Your task to perform on an android device: turn on bluetooth scan Image 0: 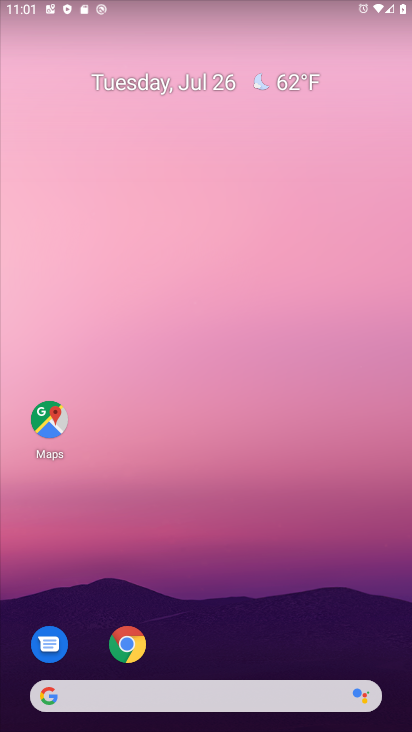
Step 0: drag from (256, 623) to (239, 264)
Your task to perform on an android device: turn on bluetooth scan Image 1: 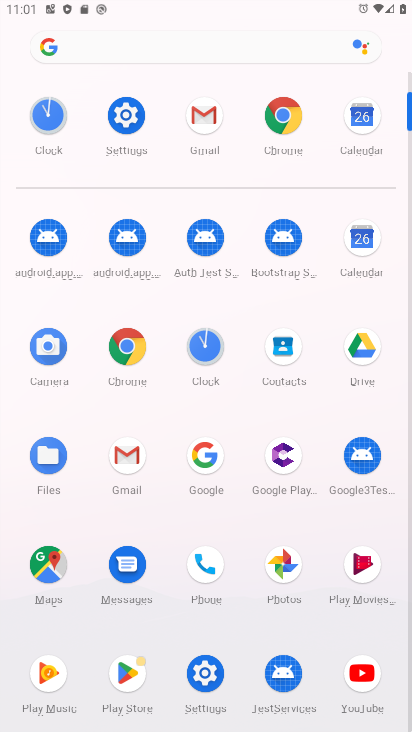
Step 1: click (126, 127)
Your task to perform on an android device: turn on bluetooth scan Image 2: 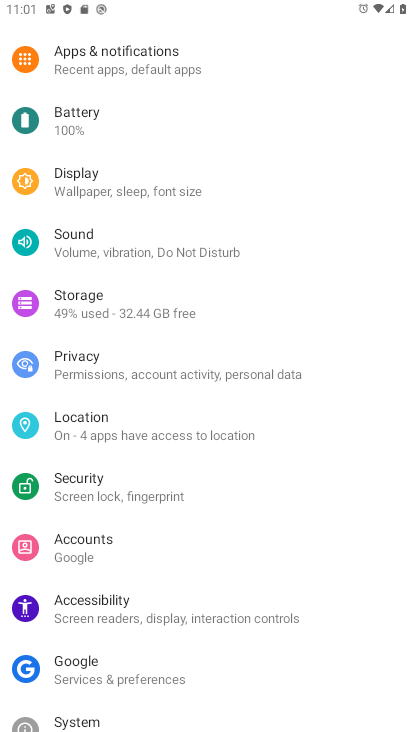
Step 2: click (102, 416)
Your task to perform on an android device: turn on bluetooth scan Image 3: 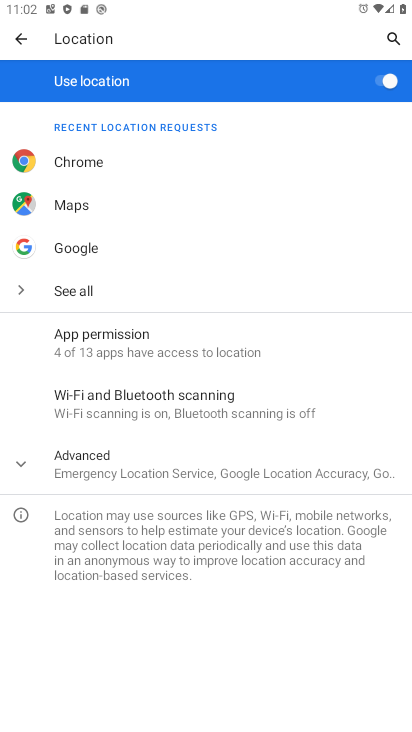
Step 3: click (128, 409)
Your task to perform on an android device: turn on bluetooth scan Image 4: 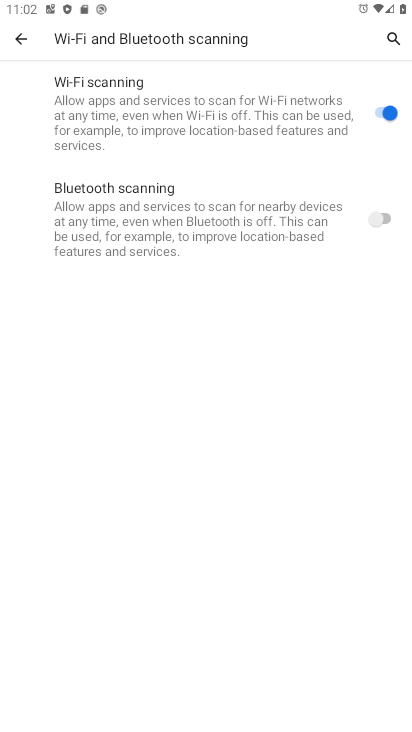
Step 4: click (377, 215)
Your task to perform on an android device: turn on bluetooth scan Image 5: 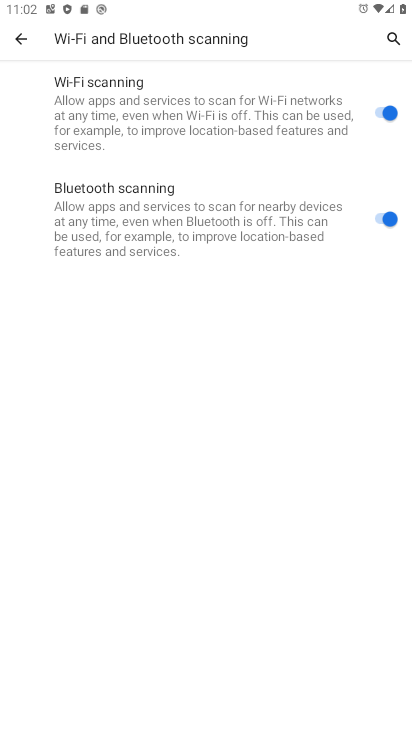
Step 5: task complete